Your task to perform on an android device: Toggle the flashlight Image 0: 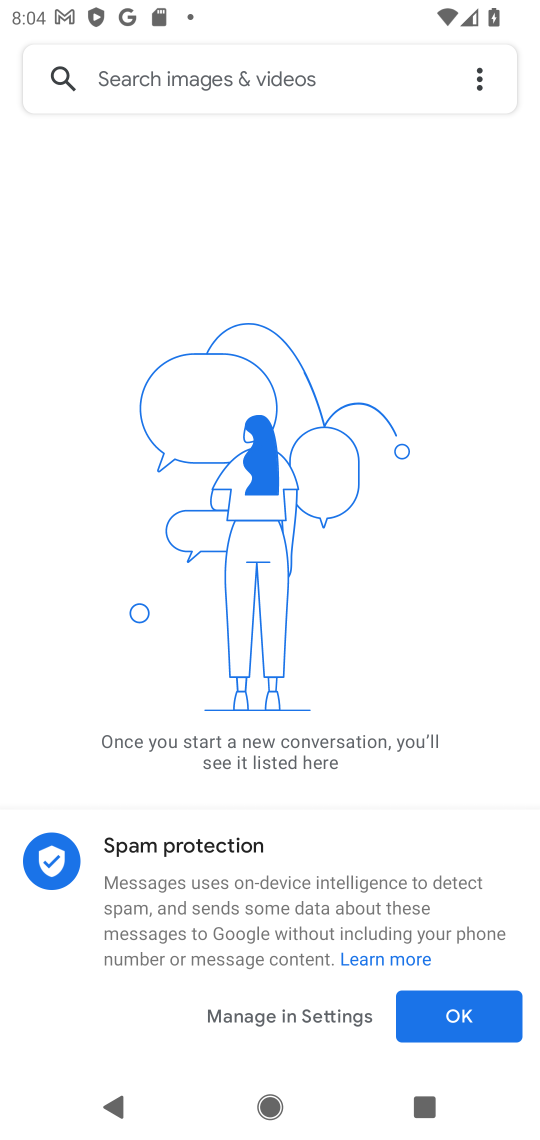
Step 0: press home button
Your task to perform on an android device: Toggle the flashlight Image 1: 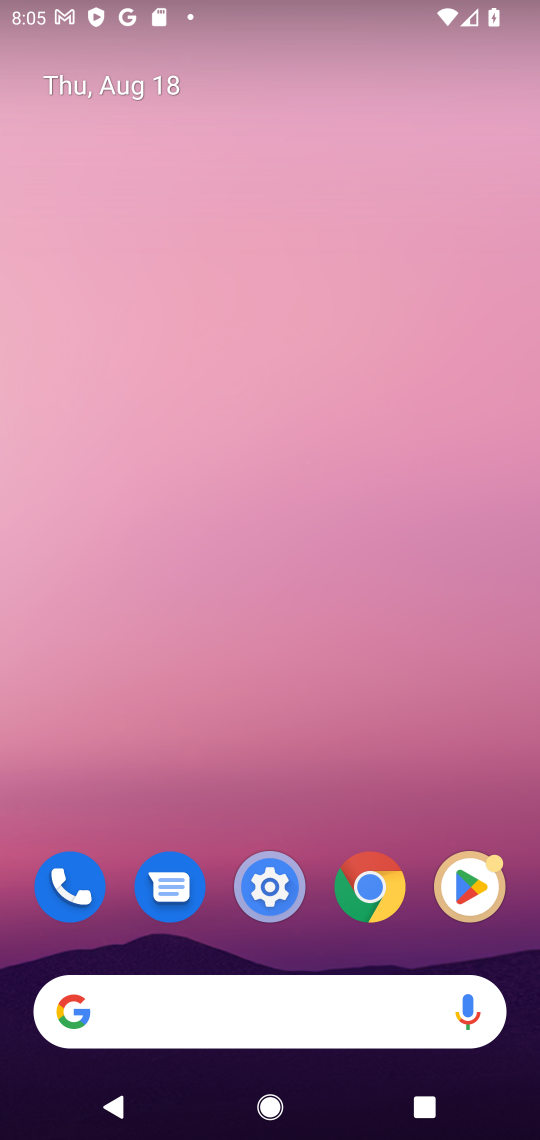
Step 1: drag from (282, 48) to (307, 804)
Your task to perform on an android device: Toggle the flashlight Image 2: 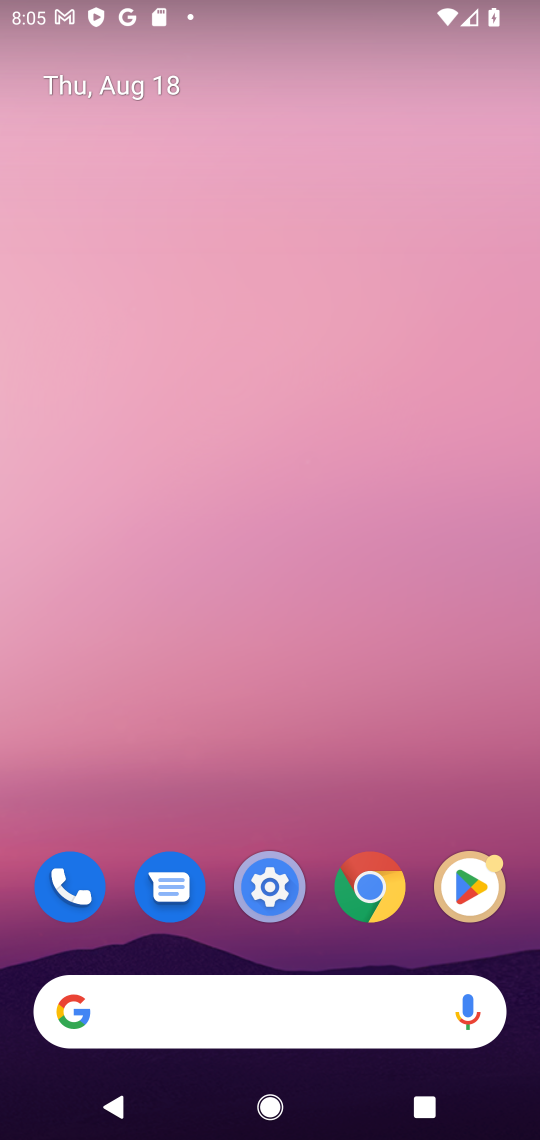
Step 2: drag from (273, 49) to (253, 623)
Your task to perform on an android device: Toggle the flashlight Image 3: 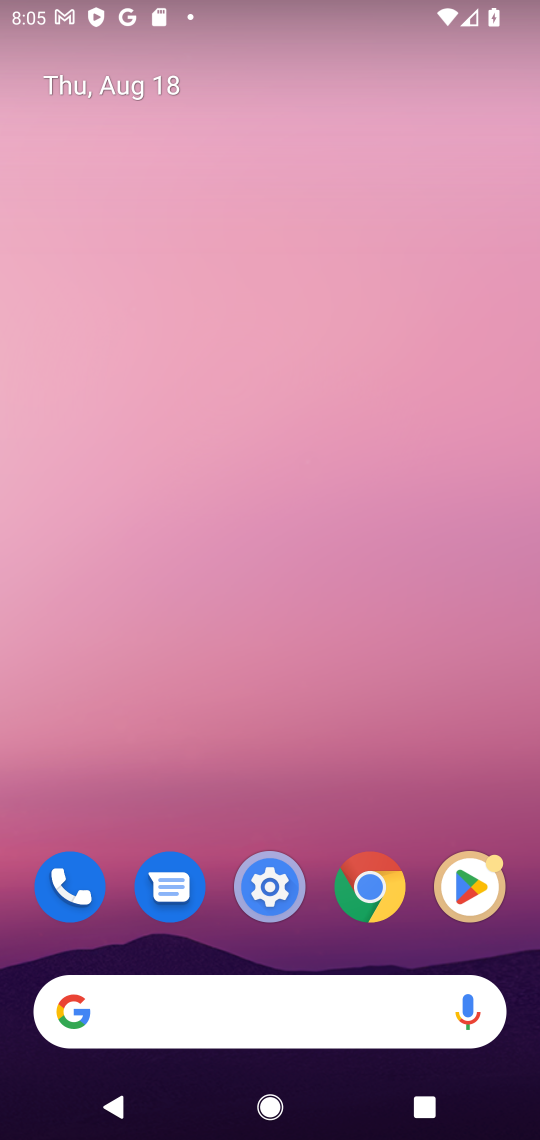
Step 3: drag from (256, 45) to (249, 719)
Your task to perform on an android device: Toggle the flashlight Image 4: 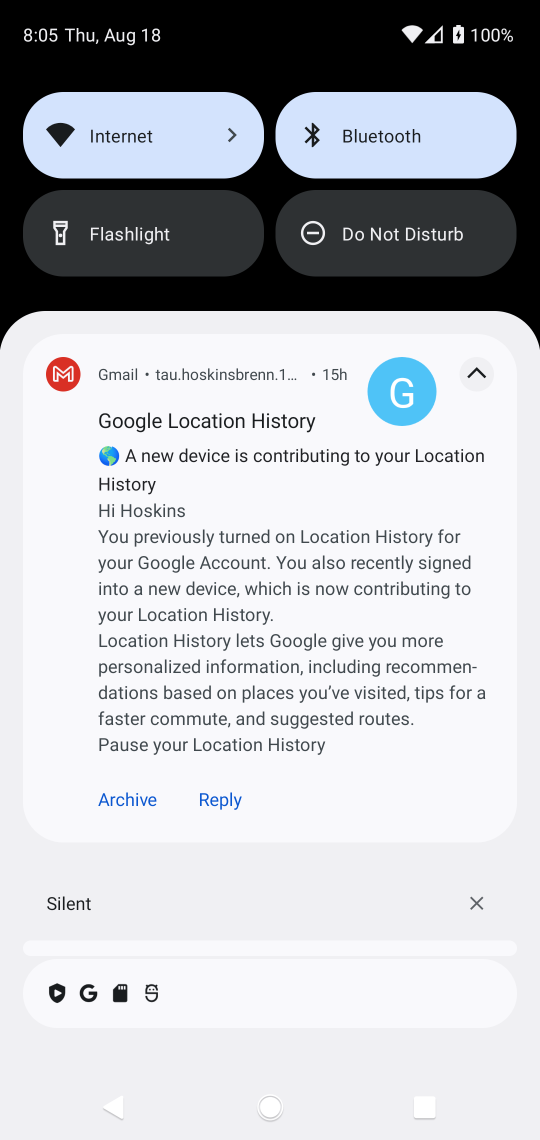
Step 4: click (129, 235)
Your task to perform on an android device: Toggle the flashlight Image 5: 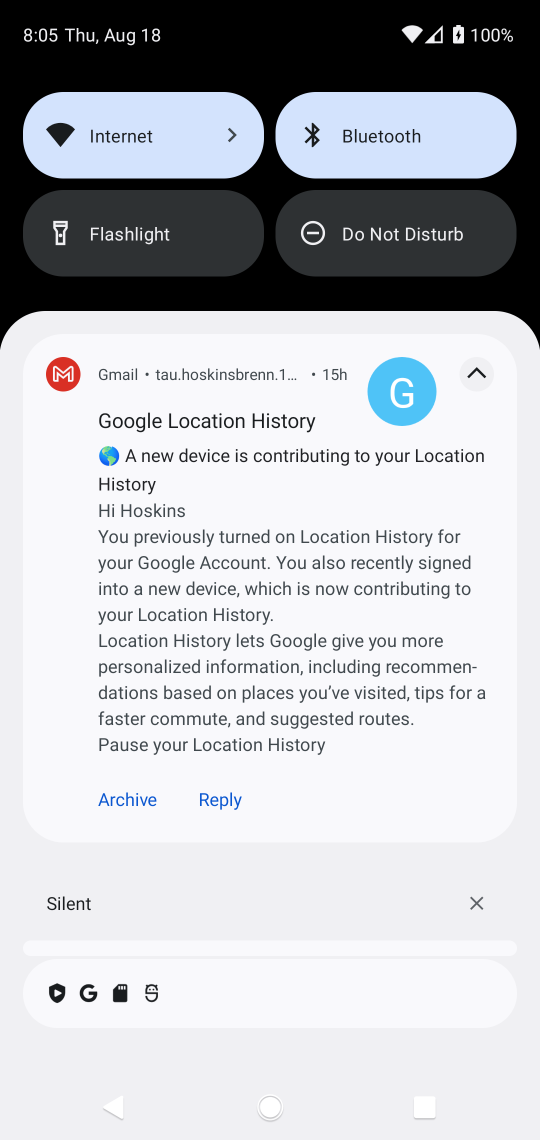
Step 5: task complete